Your task to perform on an android device: open app "Google Play Music" (install if not already installed) Image 0: 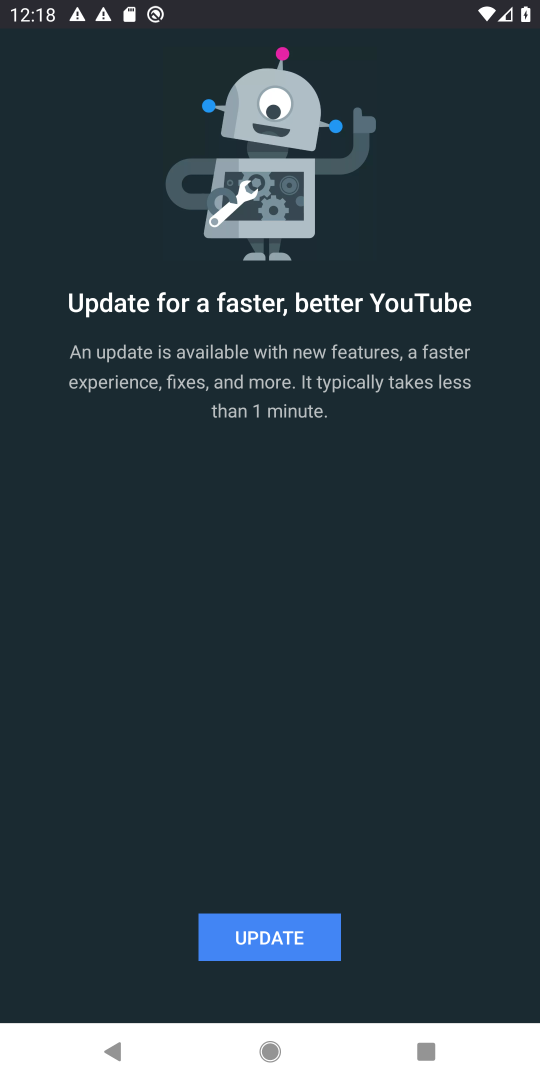
Step 0: press home button
Your task to perform on an android device: open app "Google Play Music" (install if not already installed) Image 1: 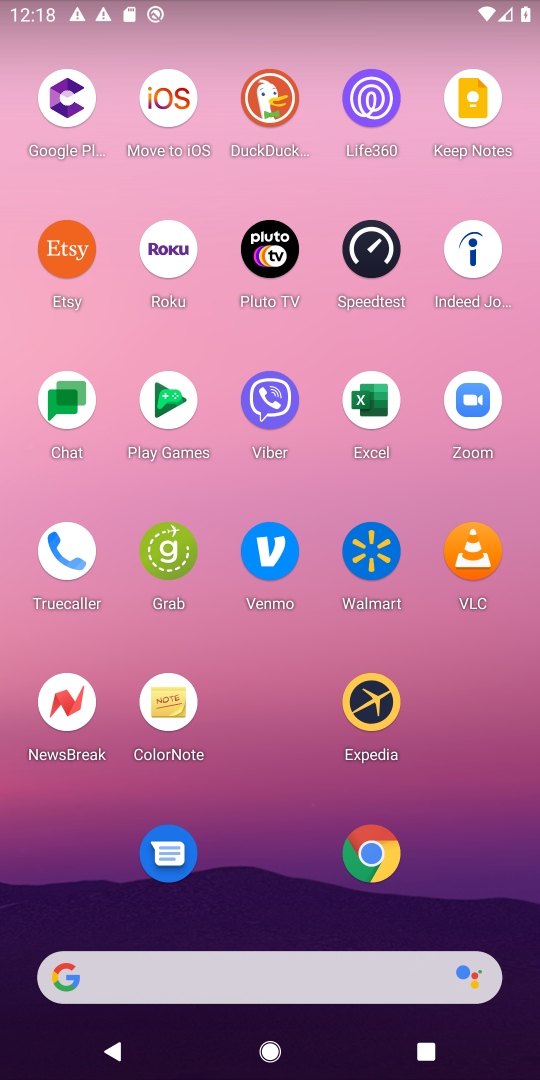
Step 1: drag from (307, 1047) to (305, 133)
Your task to perform on an android device: open app "Google Play Music" (install if not already installed) Image 2: 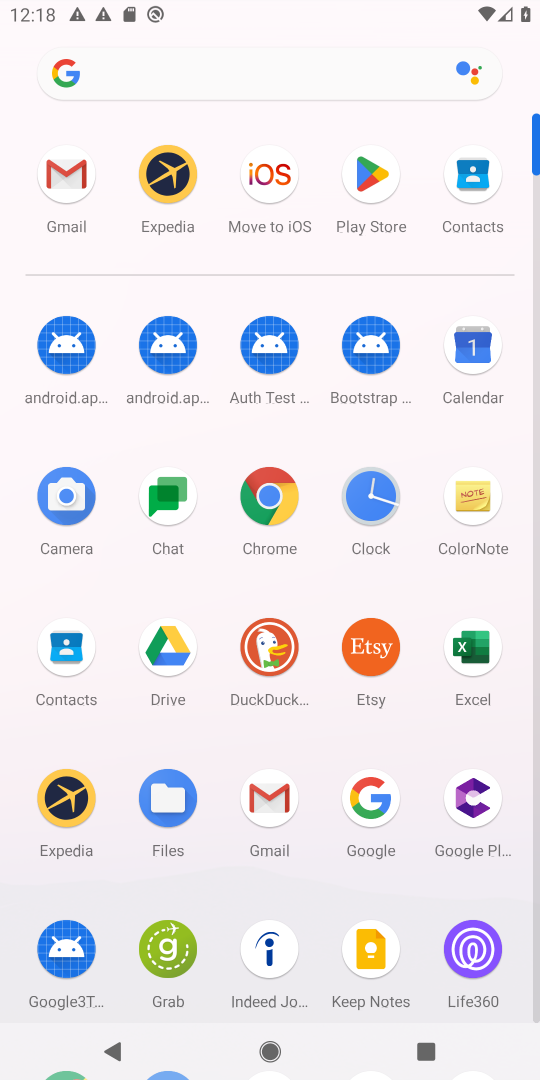
Step 2: click (371, 168)
Your task to perform on an android device: open app "Google Play Music" (install if not already installed) Image 3: 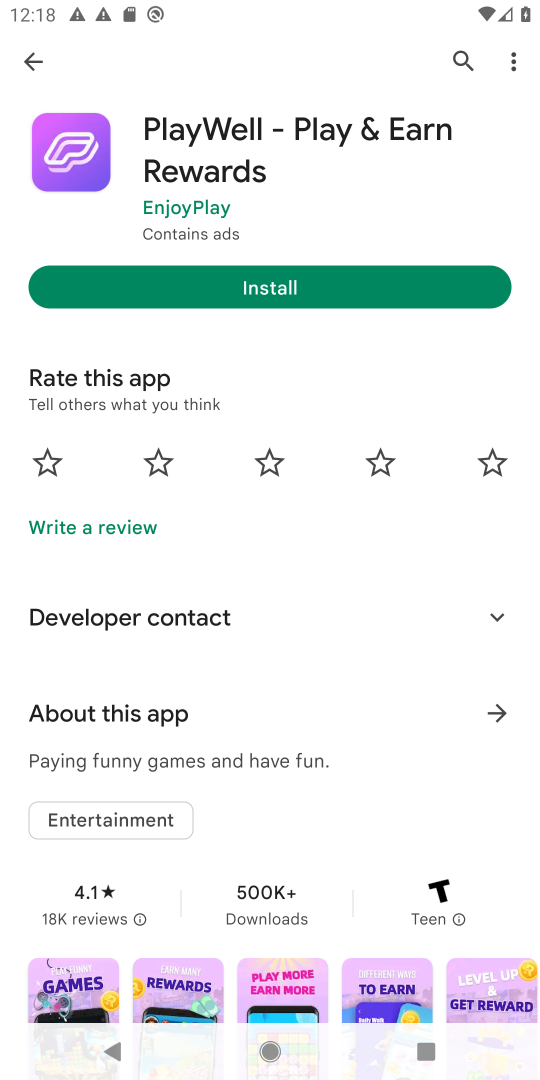
Step 3: click (461, 61)
Your task to perform on an android device: open app "Google Play Music" (install if not already installed) Image 4: 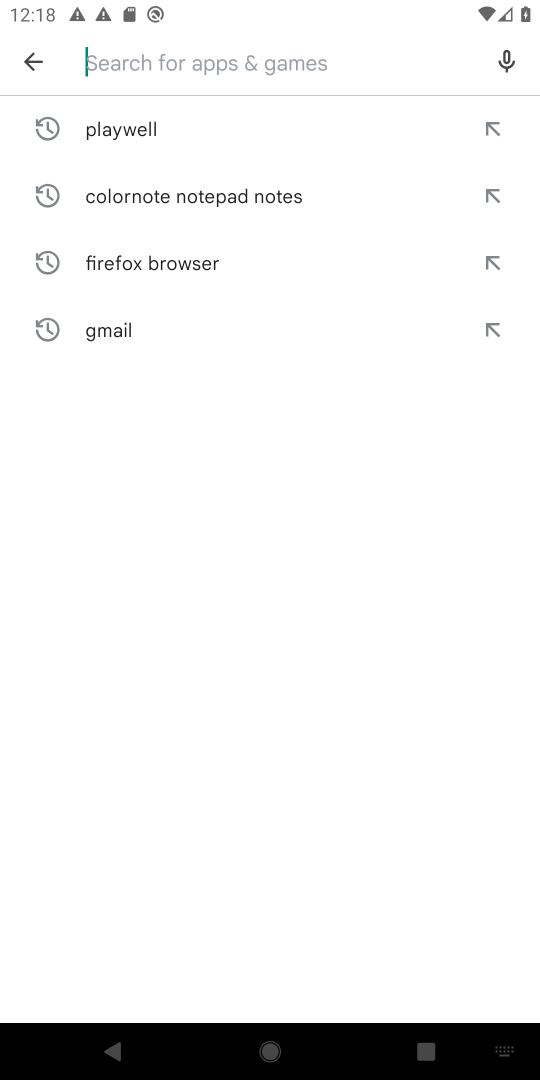
Step 4: type "Google Play Music"
Your task to perform on an android device: open app "Google Play Music" (install if not already installed) Image 5: 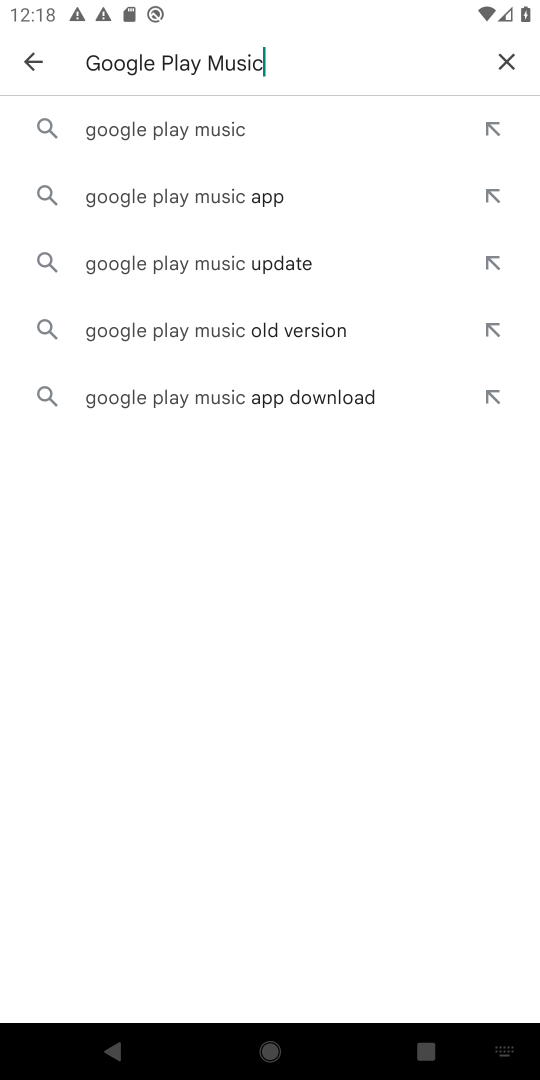
Step 5: click (184, 131)
Your task to perform on an android device: open app "Google Play Music" (install if not already installed) Image 6: 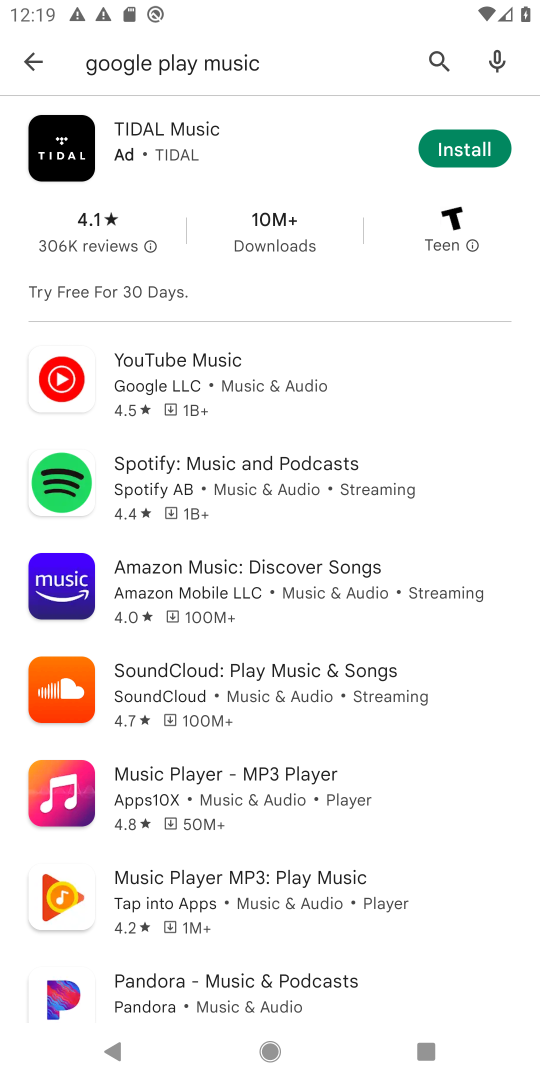
Step 6: task complete